Your task to perform on an android device: set the stopwatch Image 0: 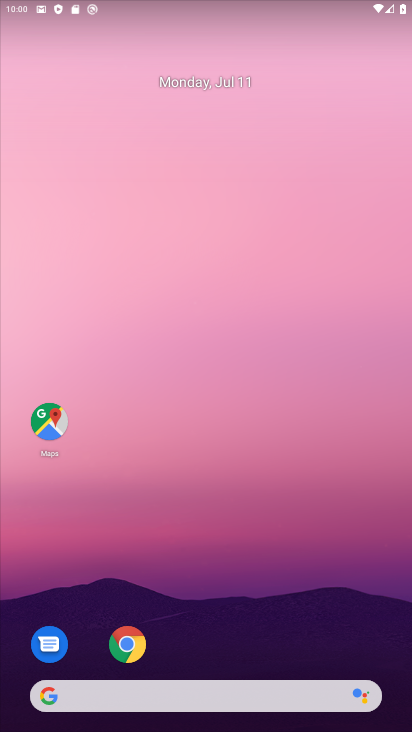
Step 0: drag from (235, 631) to (235, 144)
Your task to perform on an android device: set the stopwatch Image 1: 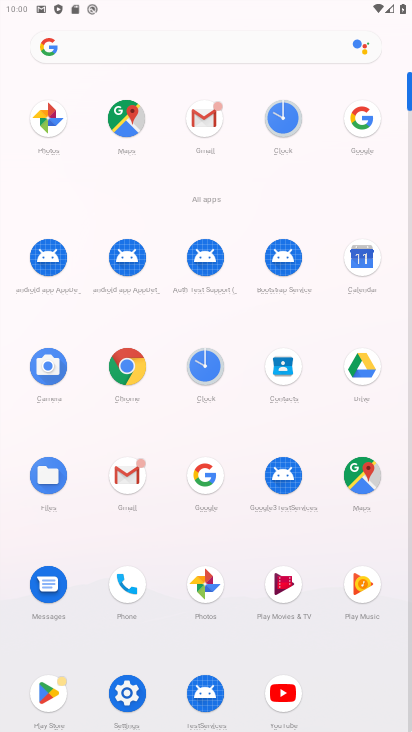
Step 1: click (279, 120)
Your task to perform on an android device: set the stopwatch Image 2: 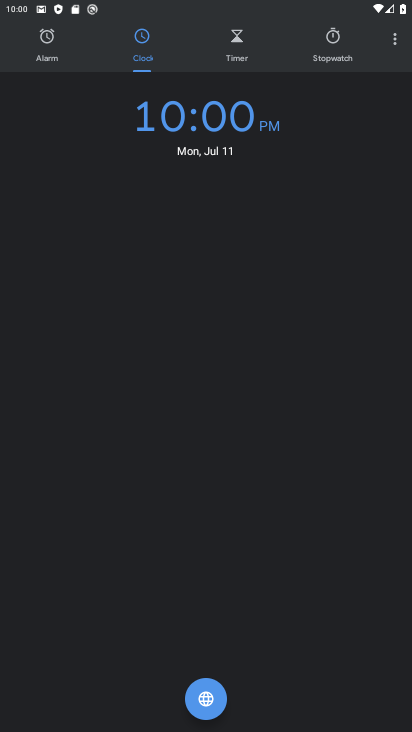
Step 2: click (347, 52)
Your task to perform on an android device: set the stopwatch Image 3: 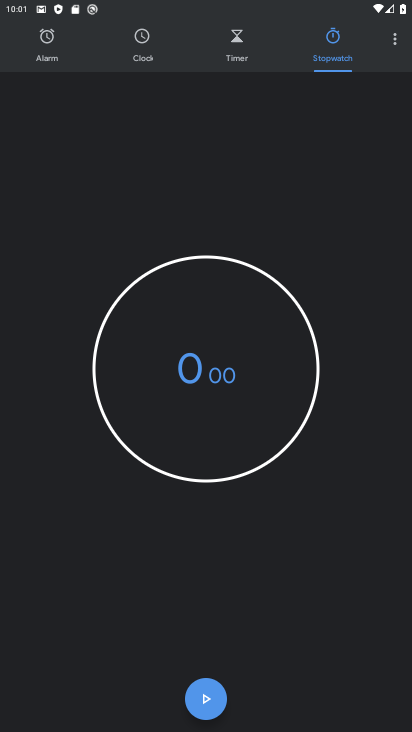
Step 3: click (210, 696)
Your task to perform on an android device: set the stopwatch Image 4: 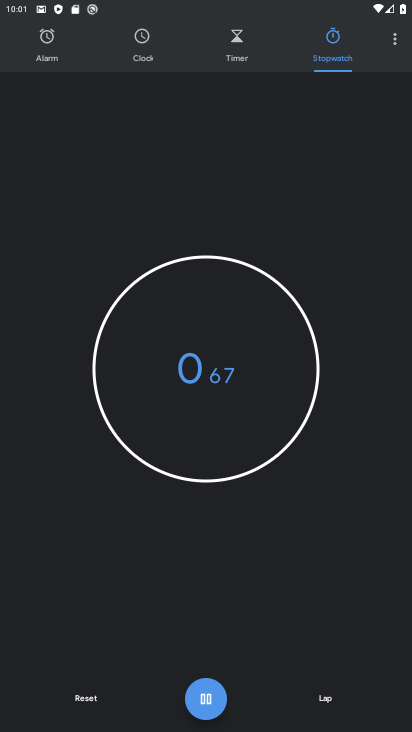
Step 4: click (210, 696)
Your task to perform on an android device: set the stopwatch Image 5: 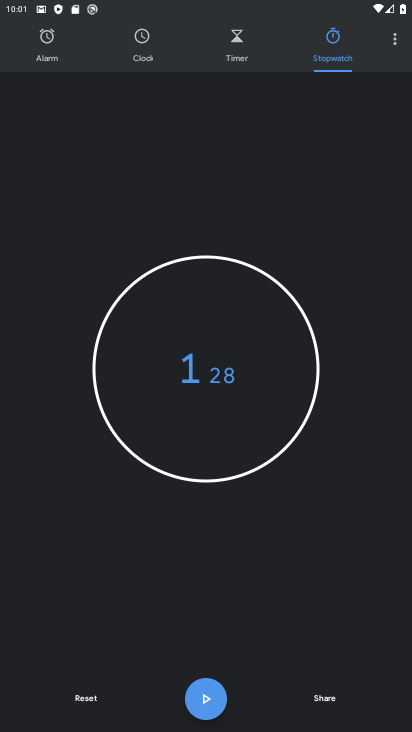
Step 5: task complete